Your task to perform on an android device: turn notification dots off Image 0: 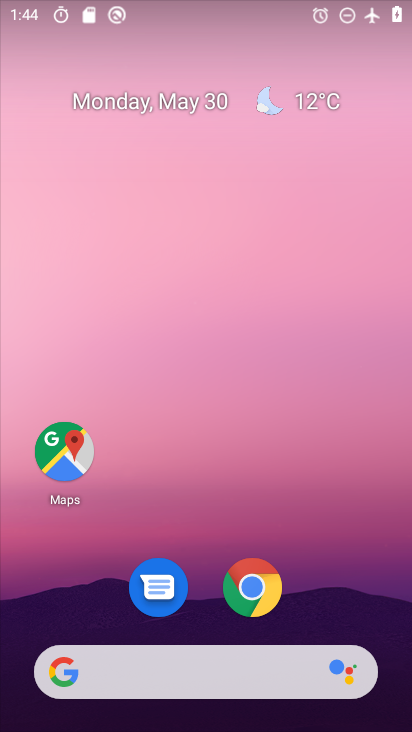
Step 0: drag from (327, 540) to (307, 117)
Your task to perform on an android device: turn notification dots off Image 1: 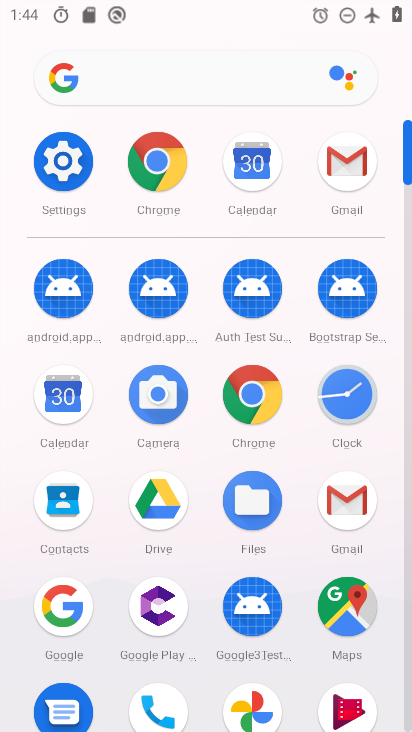
Step 1: click (53, 151)
Your task to perform on an android device: turn notification dots off Image 2: 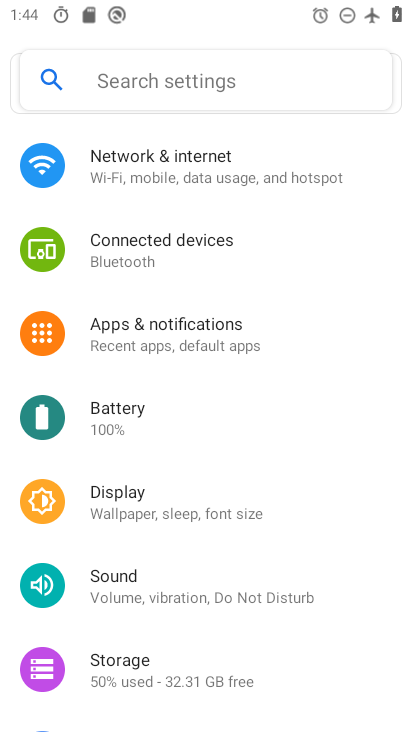
Step 2: click (208, 328)
Your task to perform on an android device: turn notification dots off Image 3: 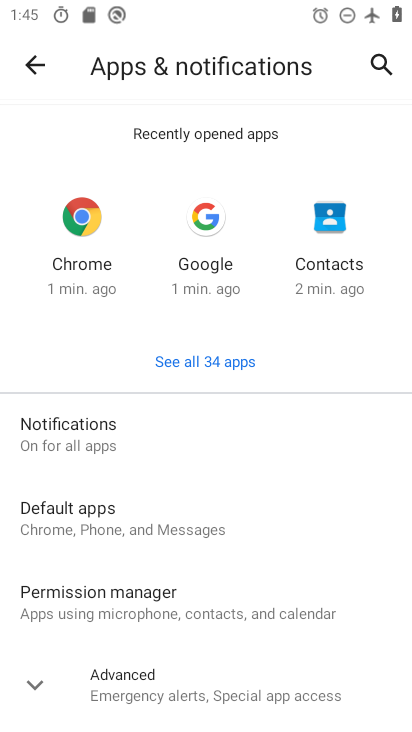
Step 3: click (79, 462)
Your task to perform on an android device: turn notification dots off Image 4: 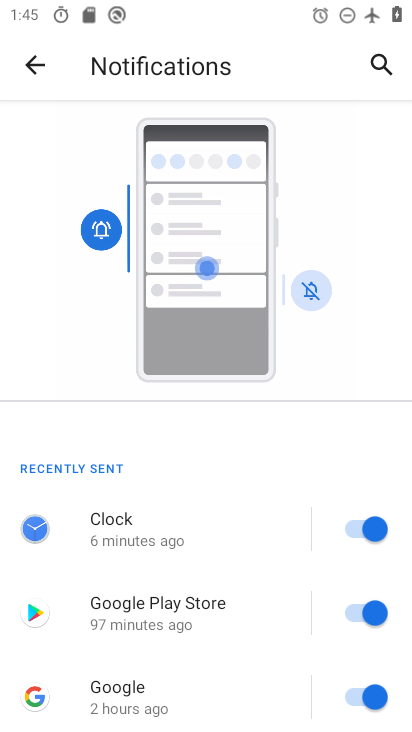
Step 4: drag from (226, 450) to (304, 30)
Your task to perform on an android device: turn notification dots off Image 5: 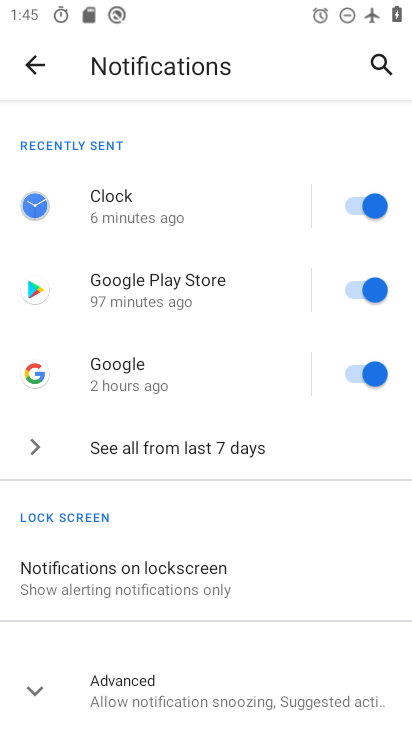
Step 5: click (142, 686)
Your task to perform on an android device: turn notification dots off Image 6: 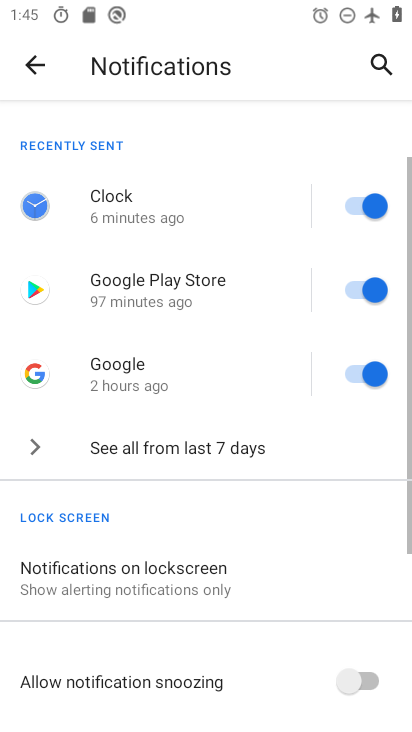
Step 6: drag from (242, 616) to (298, 113)
Your task to perform on an android device: turn notification dots off Image 7: 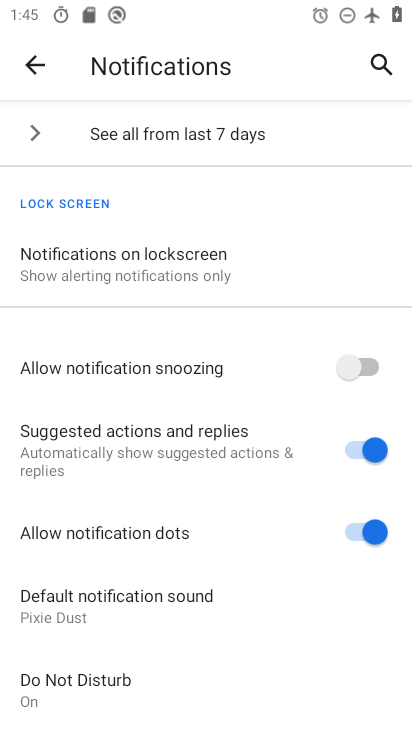
Step 7: click (374, 518)
Your task to perform on an android device: turn notification dots off Image 8: 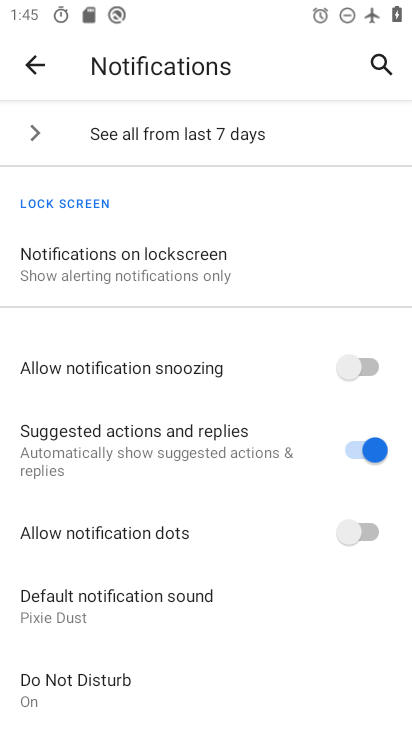
Step 8: task complete